Your task to perform on an android device: Open Google Chrome and open the bookmarks view Image 0: 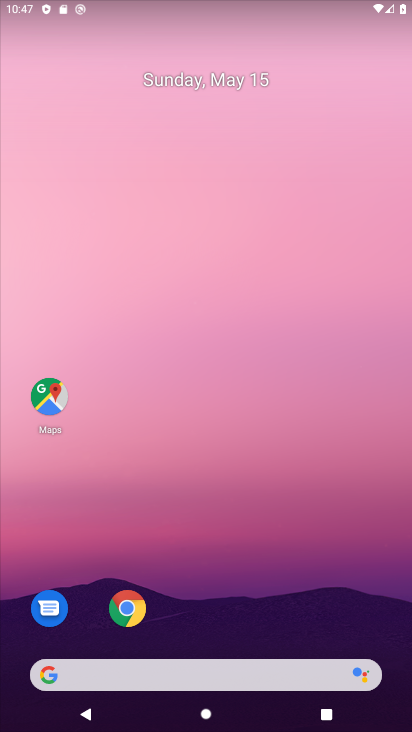
Step 0: drag from (369, 611) to (357, 99)
Your task to perform on an android device: Open Google Chrome and open the bookmarks view Image 1: 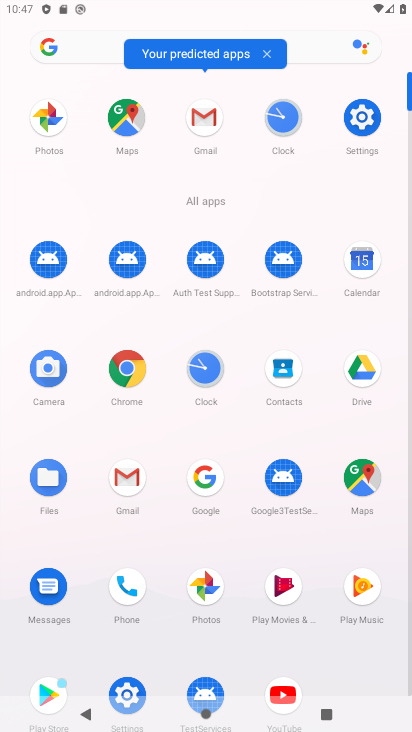
Step 1: click (114, 371)
Your task to perform on an android device: Open Google Chrome and open the bookmarks view Image 2: 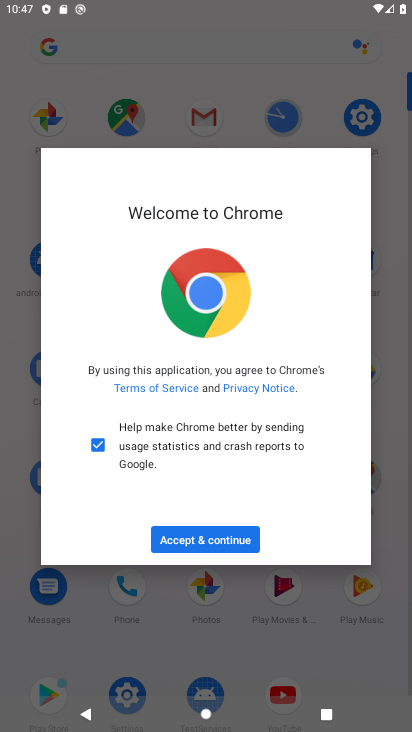
Step 2: click (229, 546)
Your task to perform on an android device: Open Google Chrome and open the bookmarks view Image 3: 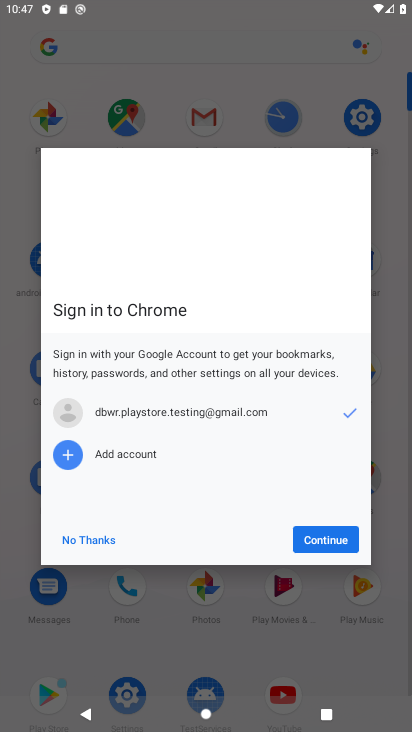
Step 3: click (314, 538)
Your task to perform on an android device: Open Google Chrome and open the bookmarks view Image 4: 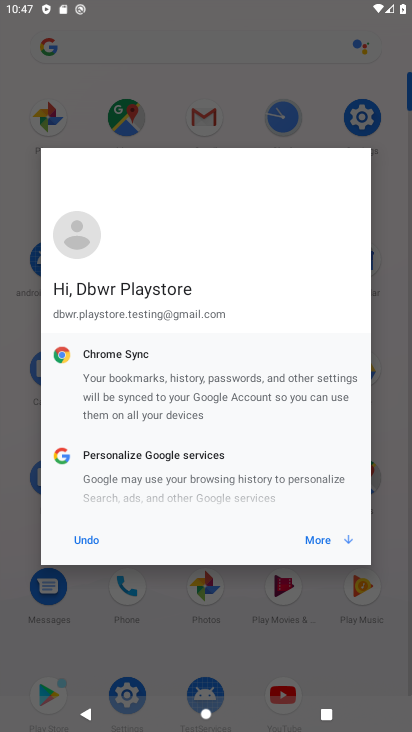
Step 4: click (311, 538)
Your task to perform on an android device: Open Google Chrome and open the bookmarks view Image 5: 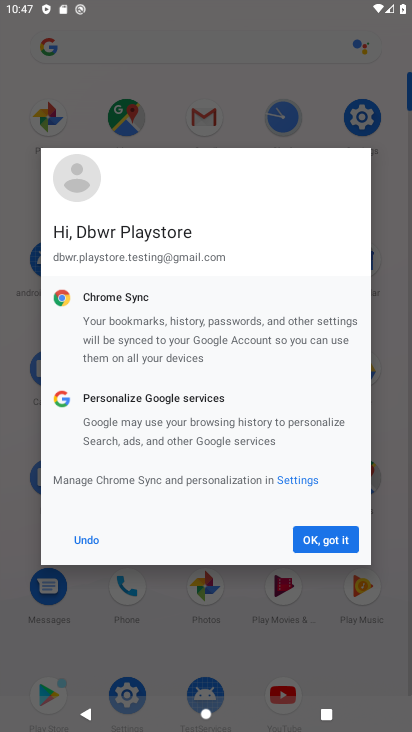
Step 5: click (329, 539)
Your task to perform on an android device: Open Google Chrome and open the bookmarks view Image 6: 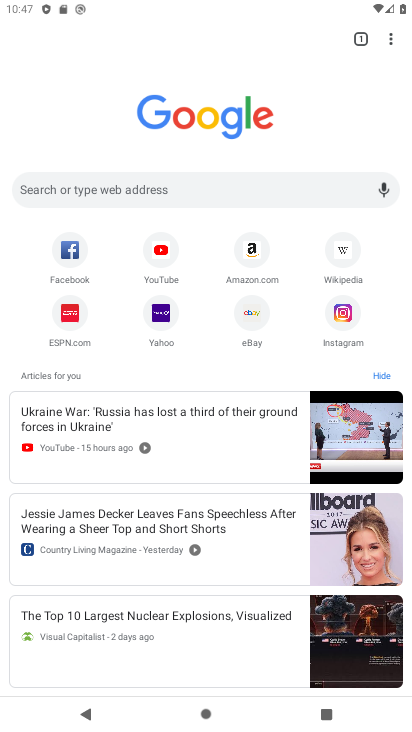
Step 6: click (391, 40)
Your task to perform on an android device: Open Google Chrome and open the bookmarks view Image 7: 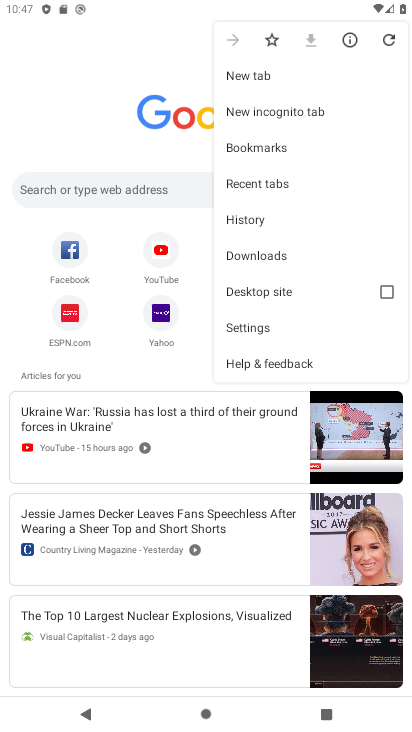
Step 7: click (273, 149)
Your task to perform on an android device: Open Google Chrome and open the bookmarks view Image 8: 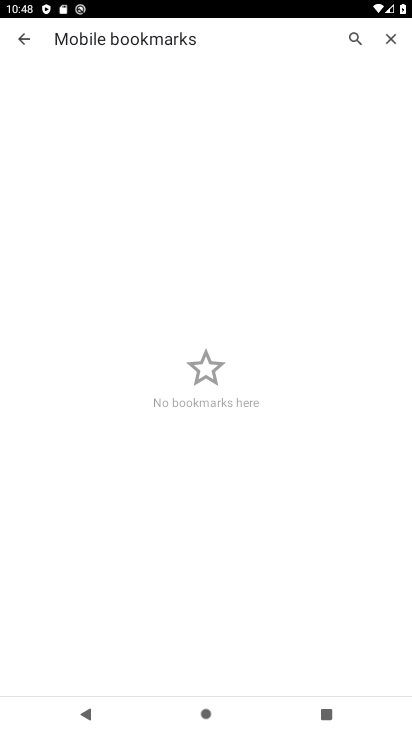
Step 8: task complete